Your task to perform on an android device: Open Youtube and go to the subscriptions tab Image 0: 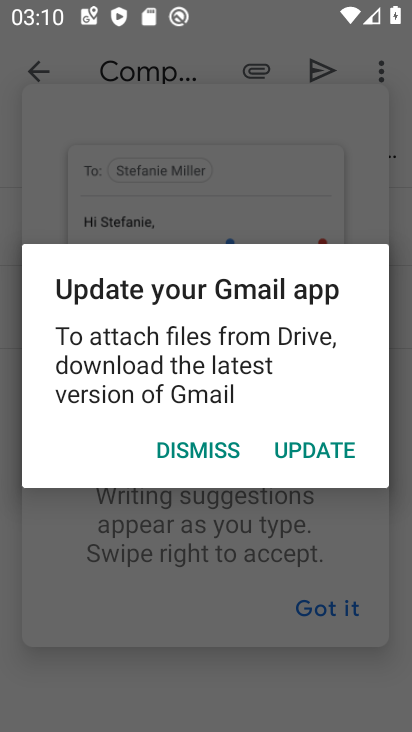
Step 0: press home button
Your task to perform on an android device: Open Youtube and go to the subscriptions tab Image 1: 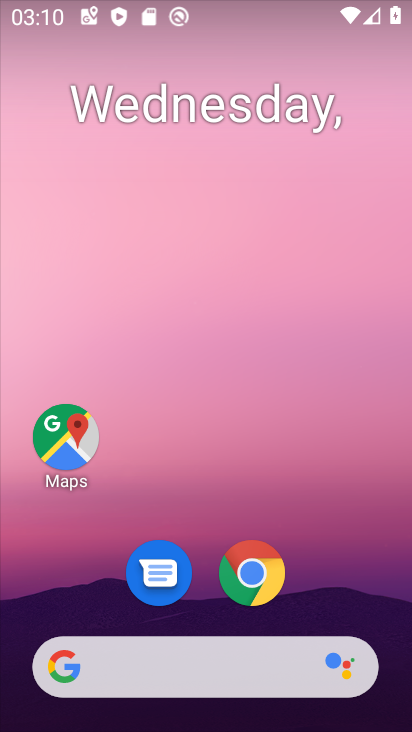
Step 1: drag from (319, 575) to (294, 36)
Your task to perform on an android device: Open Youtube and go to the subscriptions tab Image 2: 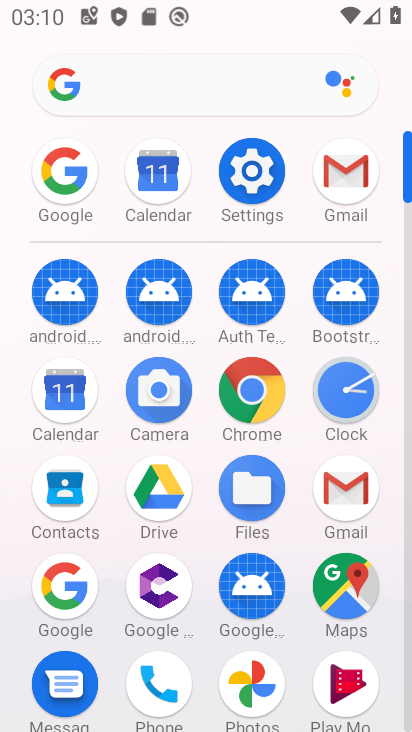
Step 2: drag from (295, 473) to (299, 213)
Your task to perform on an android device: Open Youtube and go to the subscriptions tab Image 3: 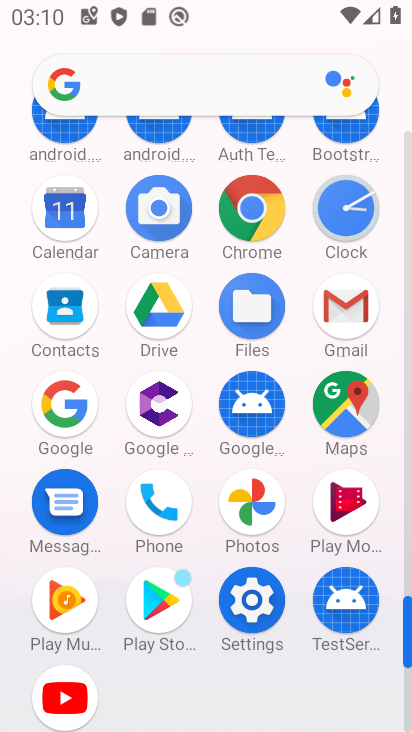
Step 3: click (63, 699)
Your task to perform on an android device: Open Youtube and go to the subscriptions tab Image 4: 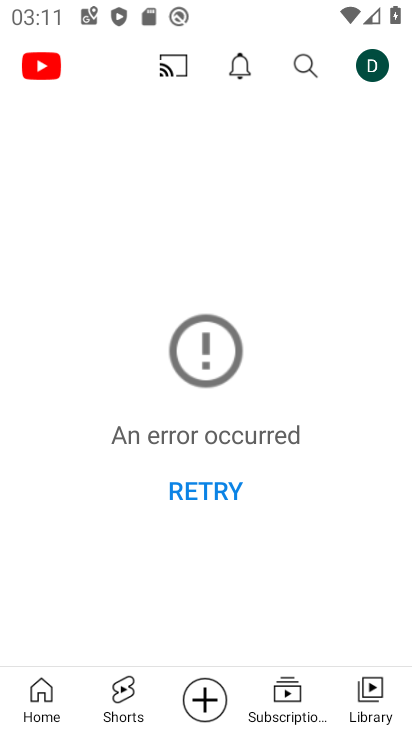
Step 4: click (221, 492)
Your task to perform on an android device: Open Youtube and go to the subscriptions tab Image 5: 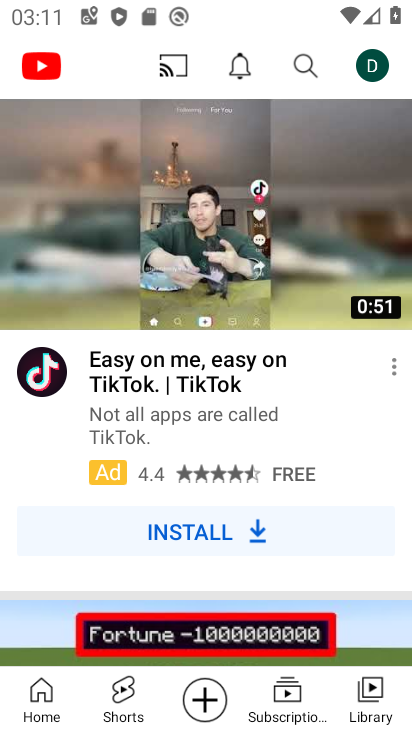
Step 5: click (295, 695)
Your task to perform on an android device: Open Youtube and go to the subscriptions tab Image 6: 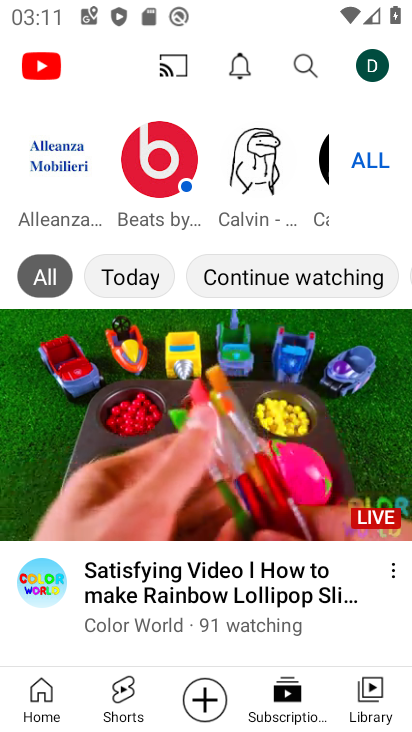
Step 6: task complete